Your task to perform on an android device: Show me popular games on the Play Store Image 0: 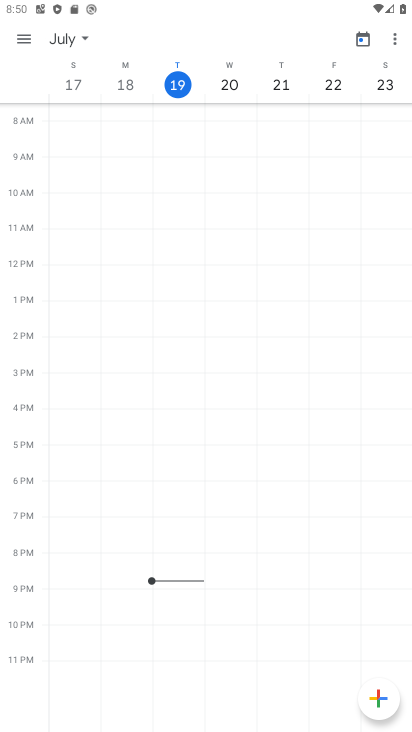
Step 0: press home button
Your task to perform on an android device: Show me popular games on the Play Store Image 1: 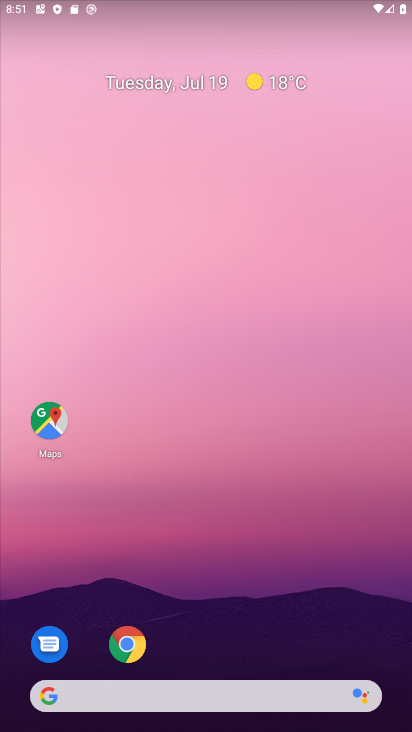
Step 1: drag from (207, 726) to (220, 197)
Your task to perform on an android device: Show me popular games on the Play Store Image 2: 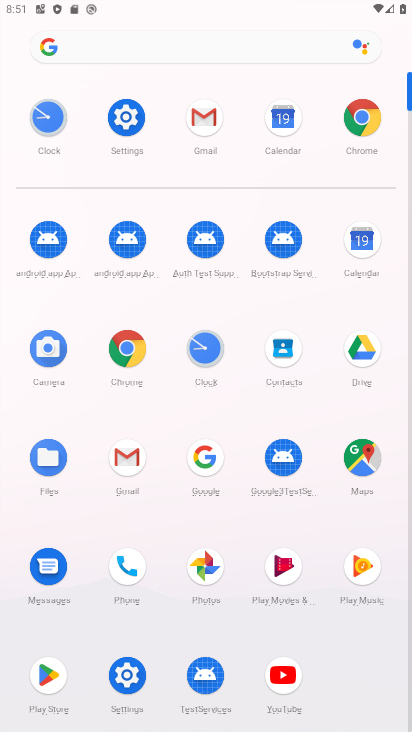
Step 2: click (47, 676)
Your task to perform on an android device: Show me popular games on the Play Store Image 3: 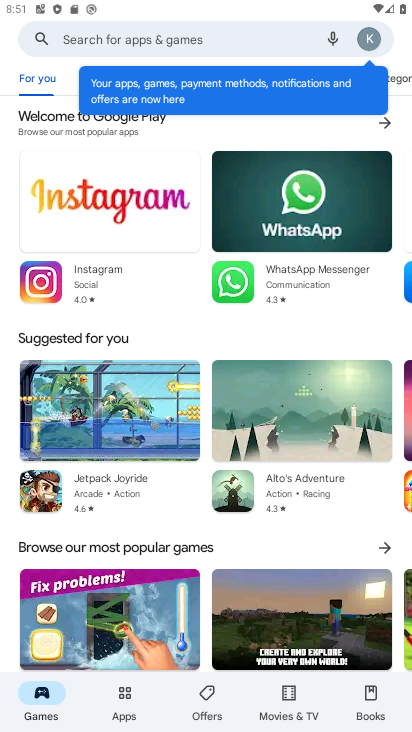
Step 3: click (386, 547)
Your task to perform on an android device: Show me popular games on the Play Store Image 4: 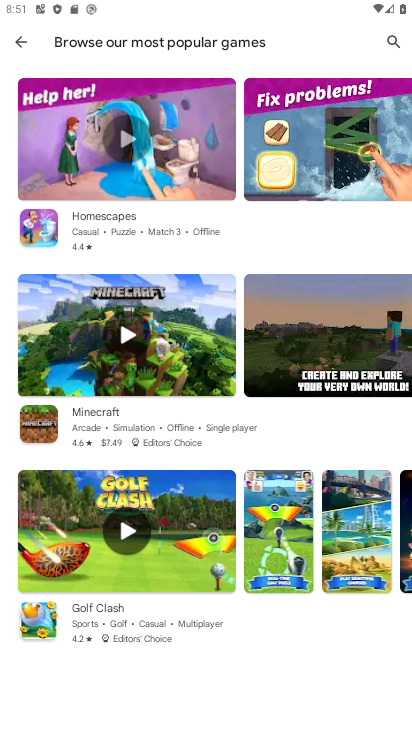
Step 4: task complete